Your task to perform on an android device: turn on wifi Image 0: 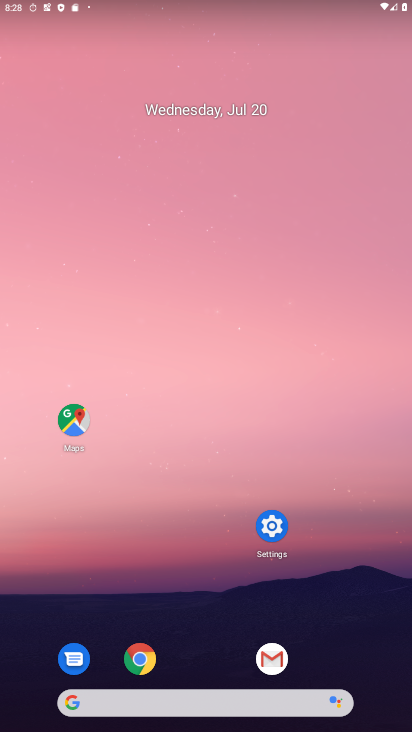
Step 0: click (274, 530)
Your task to perform on an android device: turn on wifi Image 1: 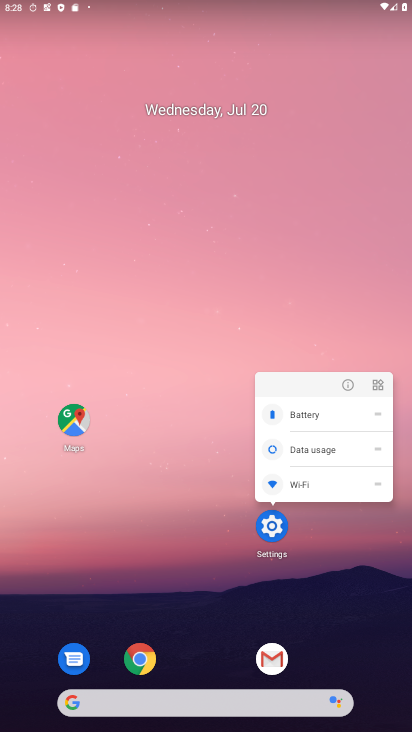
Step 1: click (277, 535)
Your task to perform on an android device: turn on wifi Image 2: 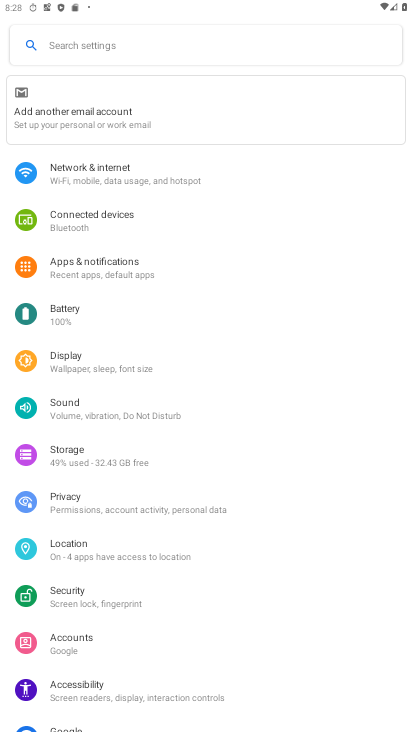
Step 2: click (102, 182)
Your task to perform on an android device: turn on wifi Image 3: 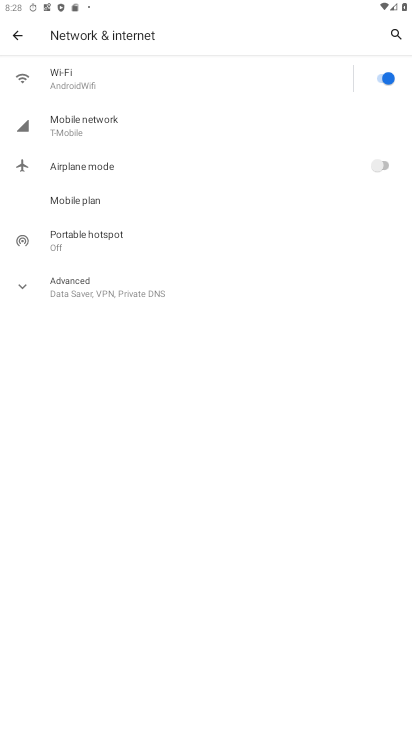
Step 3: click (110, 89)
Your task to perform on an android device: turn on wifi Image 4: 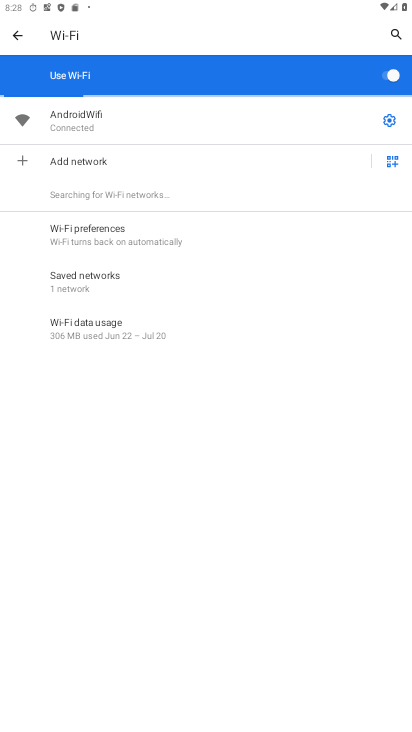
Step 4: click (391, 77)
Your task to perform on an android device: turn on wifi Image 5: 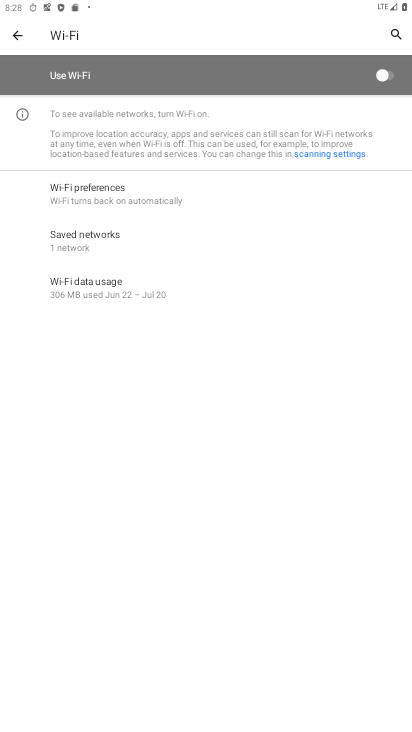
Step 5: click (391, 77)
Your task to perform on an android device: turn on wifi Image 6: 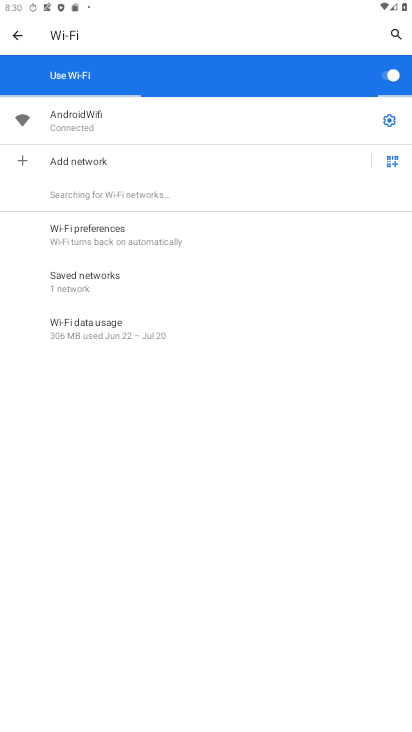
Step 6: task complete